Your task to perform on an android device: Go to ESPN.com Image 0: 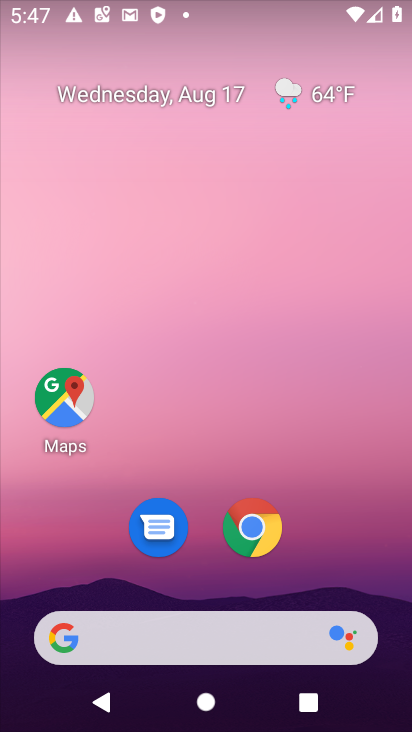
Step 0: click (252, 529)
Your task to perform on an android device: Go to ESPN.com Image 1: 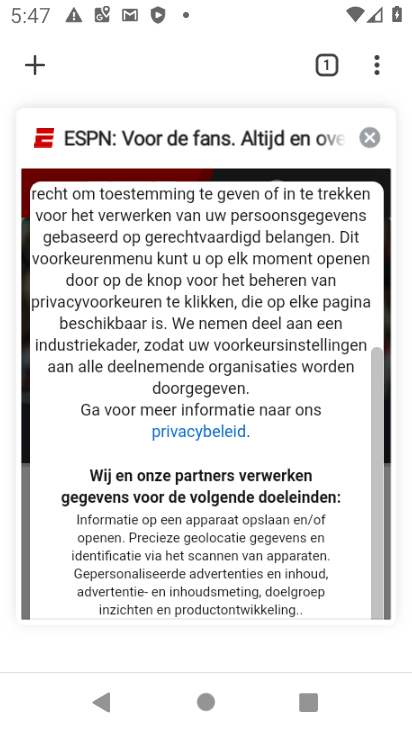
Step 1: click (182, 282)
Your task to perform on an android device: Go to ESPN.com Image 2: 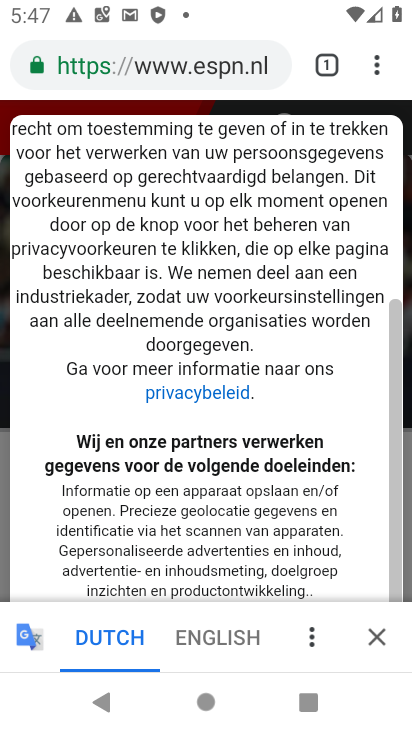
Step 2: task complete